Your task to perform on an android device: change your default location settings in chrome Image 0: 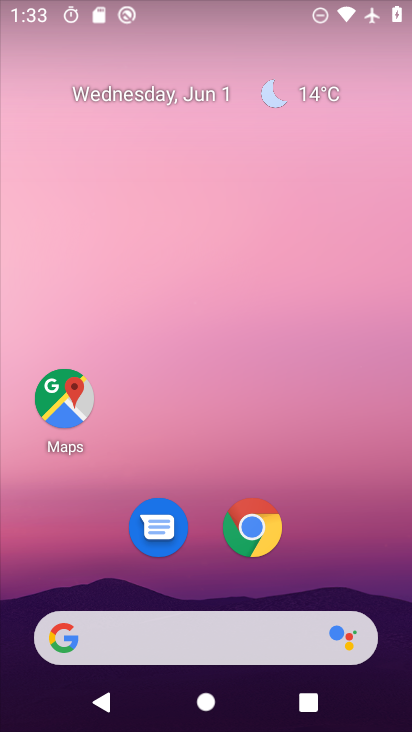
Step 0: drag from (252, 574) to (291, 77)
Your task to perform on an android device: change your default location settings in chrome Image 1: 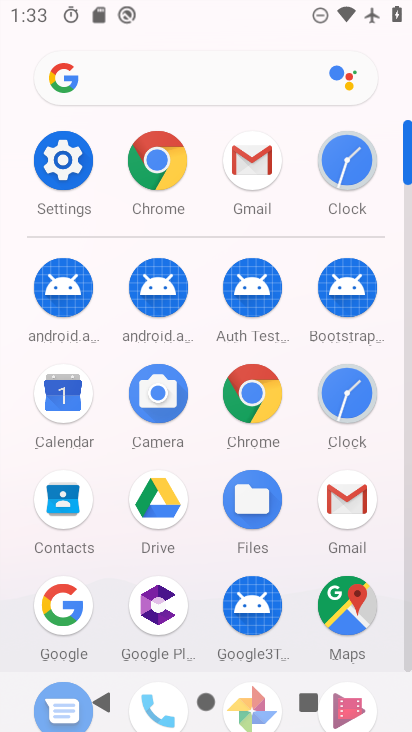
Step 1: click (252, 405)
Your task to perform on an android device: change your default location settings in chrome Image 2: 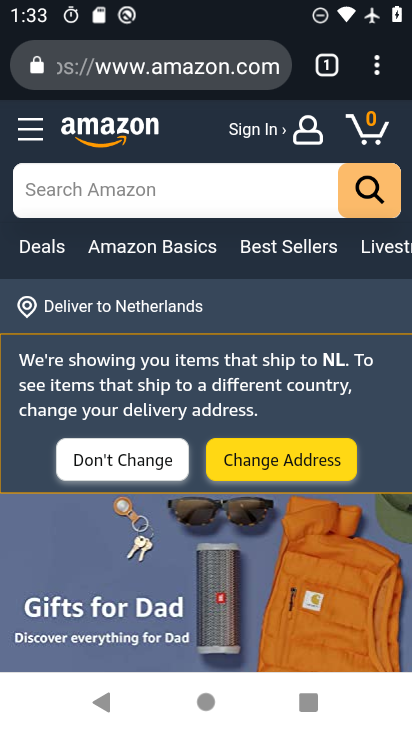
Step 2: click (377, 68)
Your task to perform on an android device: change your default location settings in chrome Image 3: 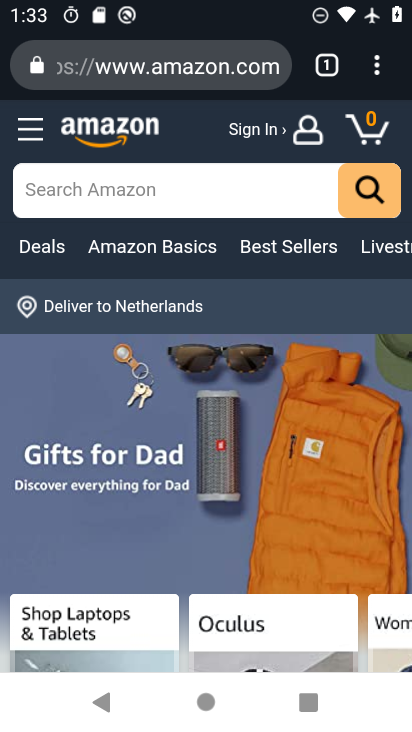
Step 3: click (393, 62)
Your task to perform on an android device: change your default location settings in chrome Image 4: 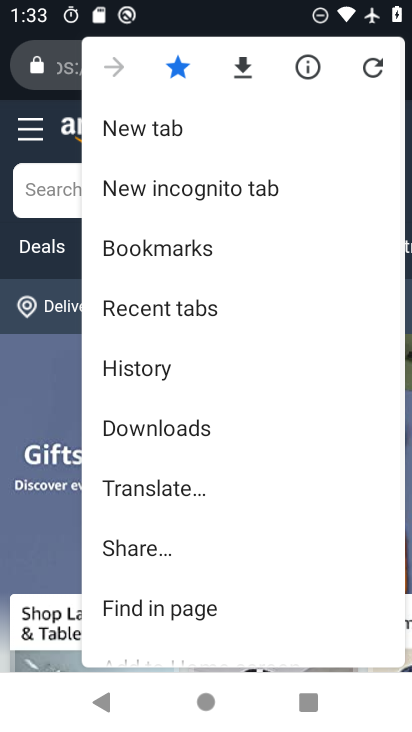
Step 4: drag from (177, 524) to (270, 201)
Your task to perform on an android device: change your default location settings in chrome Image 5: 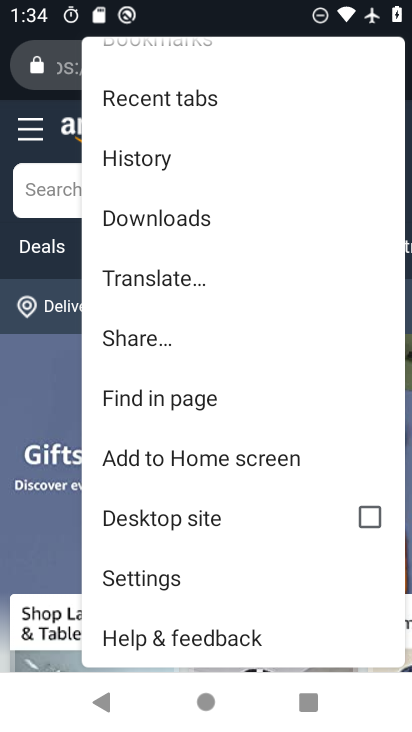
Step 5: click (169, 572)
Your task to perform on an android device: change your default location settings in chrome Image 6: 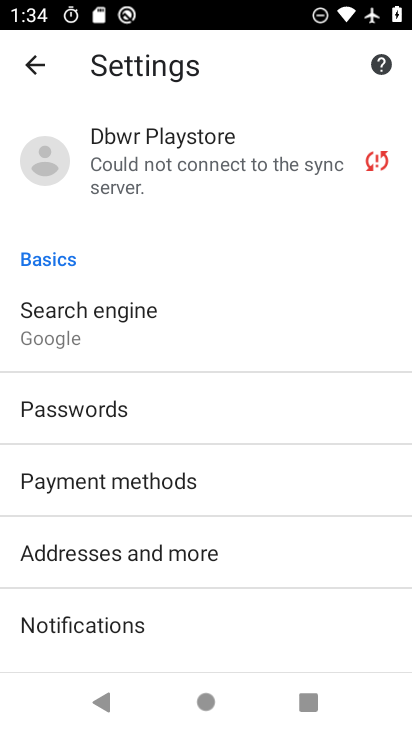
Step 6: drag from (182, 552) to (269, 206)
Your task to perform on an android device: change your default location settings in chrome Image 7: 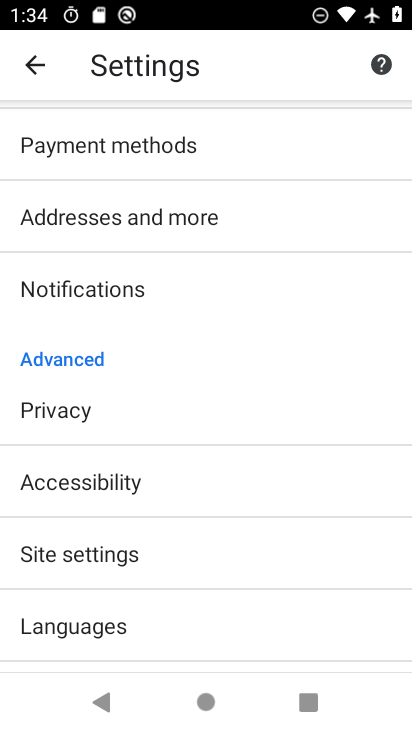
Step 7: drag from (181, 584) to (220, 405)
Your task to perform on an android device: change your default location settings in chrome Image 8: 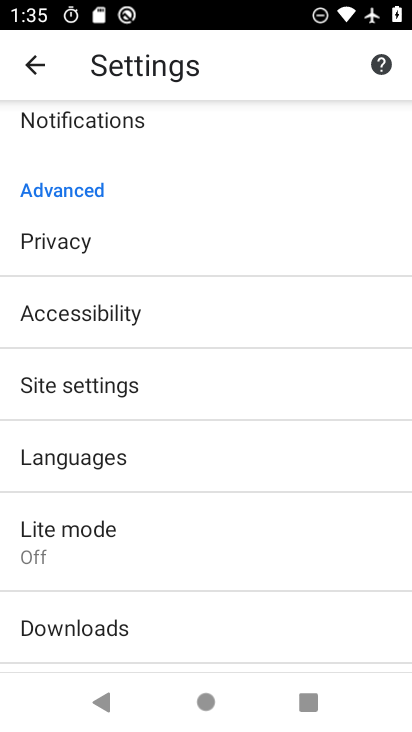
Step 8: click (100, 385)
Your task to perform on an android device: change your default location settings in chrome Image 9: 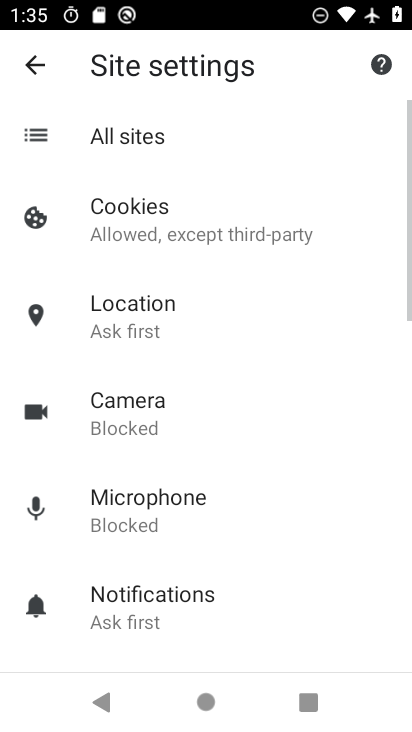
Step 9: click (156, 304)
Your task to perform on an android device: change your default location settings in chrome Image 10: 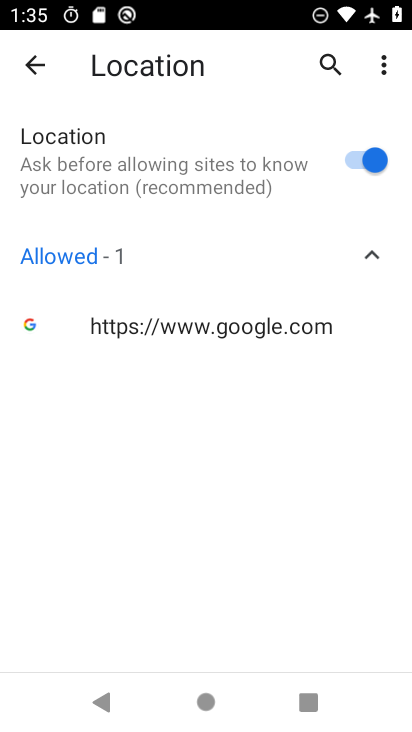
Step 10: click (374, 163)
Your task to perform on an android device: change your default location settings in chrome Image 11: 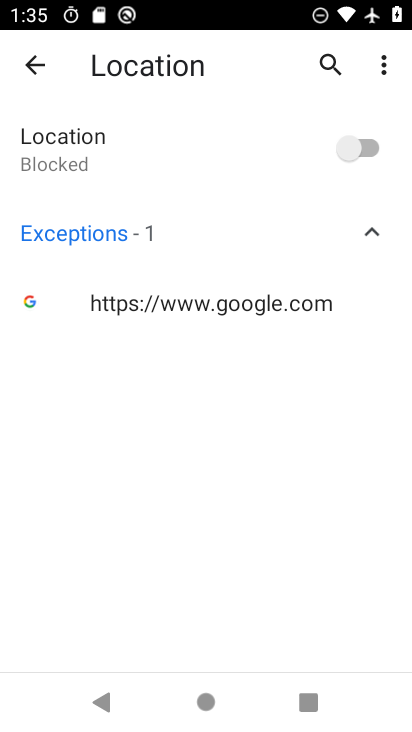
Step 11: task complete